Your task to perform on an android device: Search for macbook air on amazon.com, select the first entry, add it to the cart, then select checkout. Image 0: 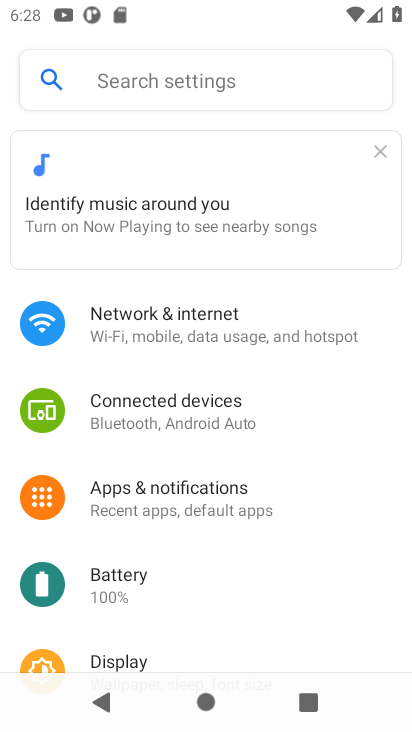
Step 0: press home button
Your task to perform on an android device: Search for macbook air on amazon.com, select the first entry, add it to the cart, then select checkout. Image 1: 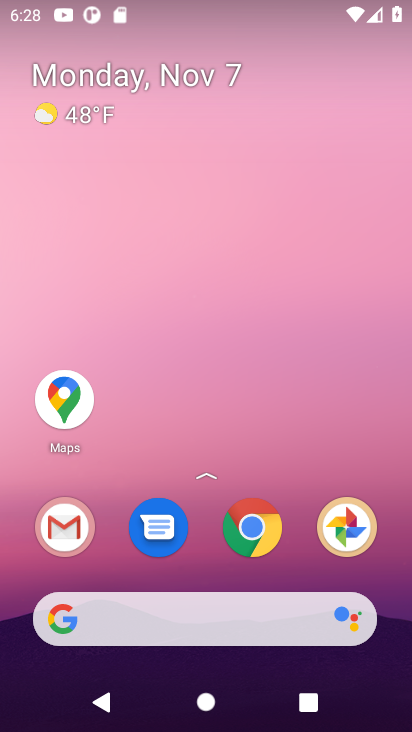
Step 1: click (273, 517)
Your task to perform on an android device: Search for macbook air on amazon.com, select the first entry, add it to the cart, then select checkout. Image 2: 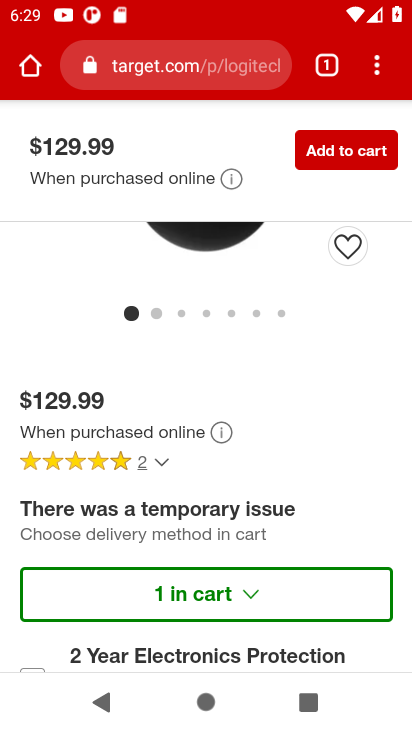
Step 2: click (174, 73)
Your task to perform on an android device: Search for macbook air on amazon.com, select the first entry, add it to the cart, then select checkout. Image 3: 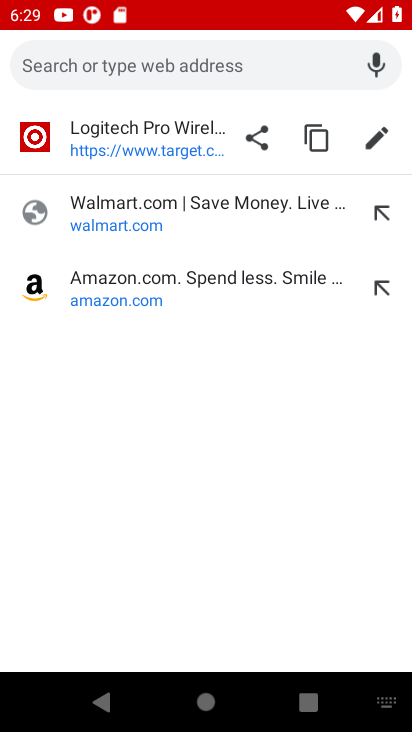
Step 3: type "amazon.com"
Your task to perform on an android device: Search for macbook air on amazon.com, select the first entry, add it to the cart, then select checkout. Image 4: 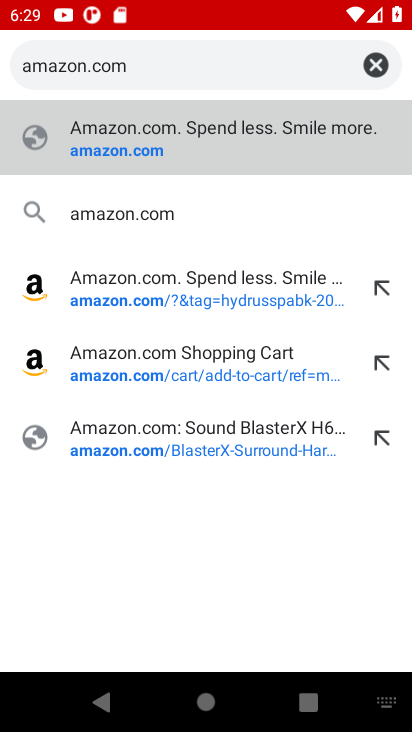
Step 4: click (166, 138)
Your task to perform on an android device: Search for macbook air on amazon.com, select the first entry, add it to the cart, then select checkout. Image 5: 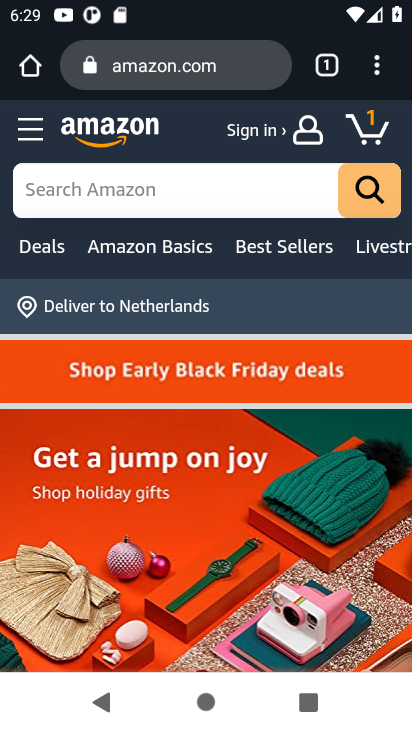
Step 5: click (211, 194)
Your task to perform on an android device: Search for macbook air on amazon.com, select the first entry, add it to the cart, then select checkout. Image 6: 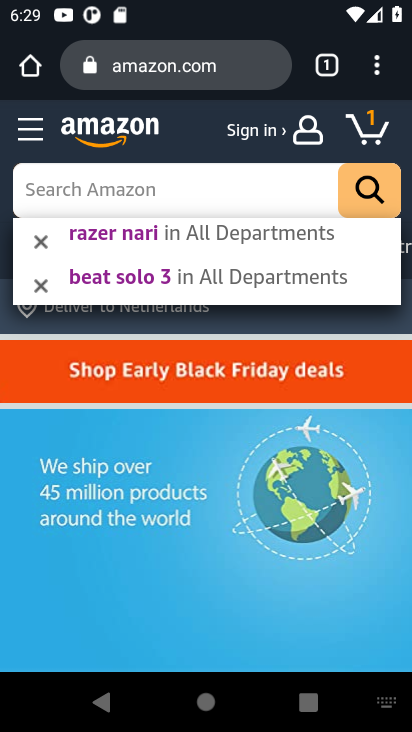
Step 6: type "macbook air"
Your task to perform on an android device: Search for macbook air on amazon.com, select the first entry, add it to the cart, then select checkout. Image 7: 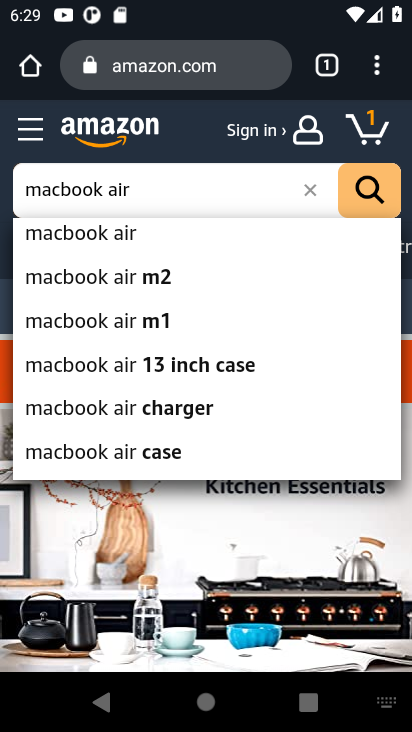
Step 7: click (104, 236)
Your task to perform on an android device: Search for macbook air on amazon.com, select the first entry, add it to the cart, then select checkout. Image 8: 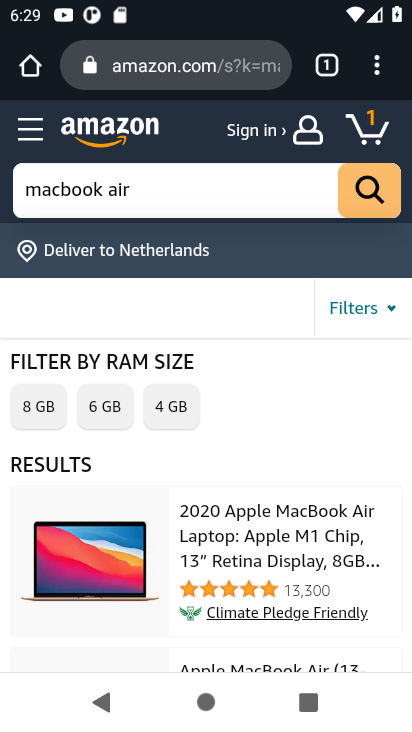
Step 8: click (321, 530)
Your task to perform on an android device: Search for macbook air on amazon.com, select the first entry, add it to the cart, then select checkout. Image 9: 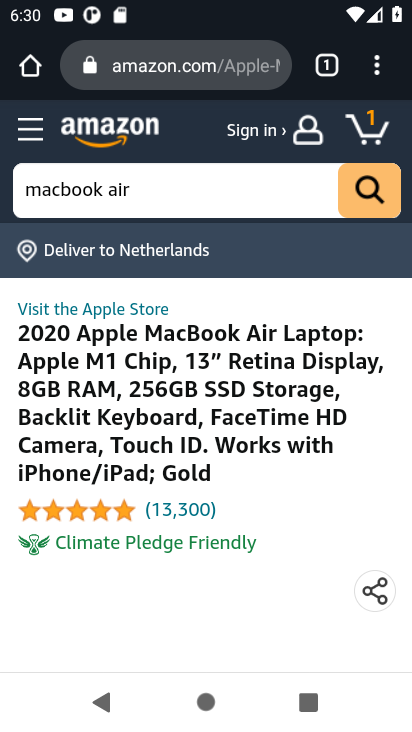
Step 9: task complete